Your task to perform on an android device: turn off smart reply in the gmail app Image 0: 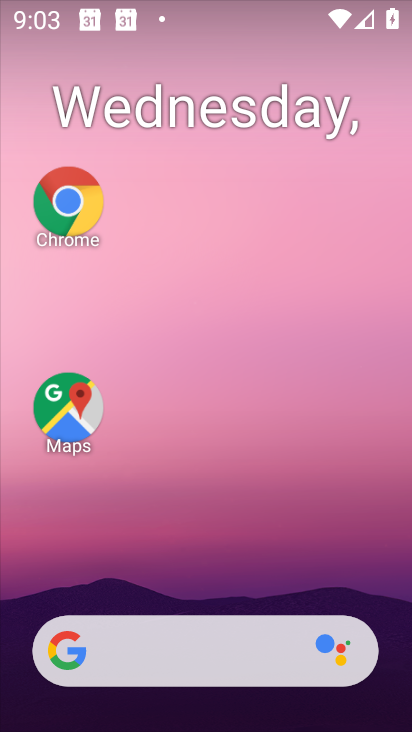
Step 0: drag from (197, 578) to (143, 19)
Your task to perform on an android device: turn off smart reply in the gmail app Image 1: 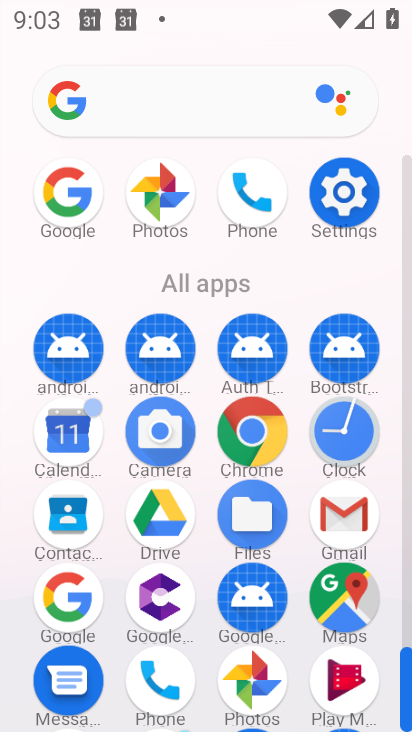
Step 1: click (360, 522)
Your task to perform on an android device: turn off smart reply in the gmail app Image 2: 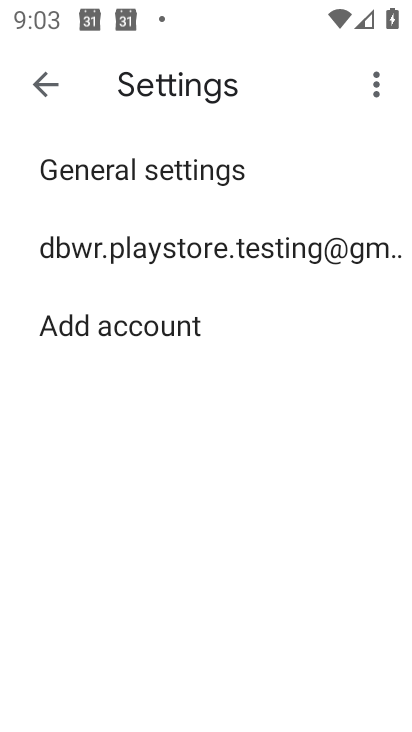
Step 2: click (74, 233)
Your task to perform on an android device: turn off smart reply in the gmail app Image 3: 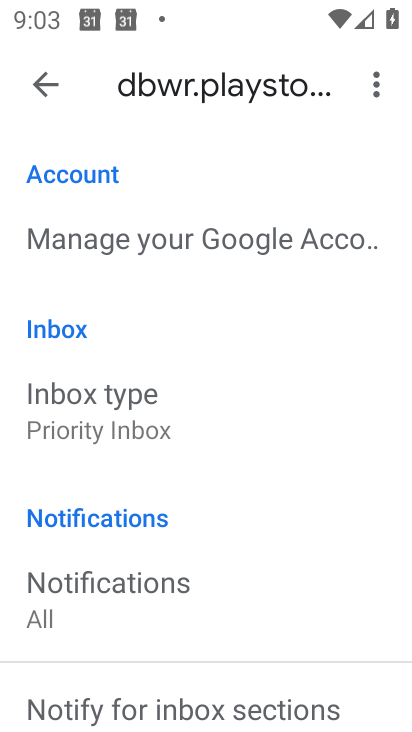
Step 3: drag from (265, 555) to (166, 82)
Your task to perform on an android device: turn off smart reply in the gmail app Image 4: 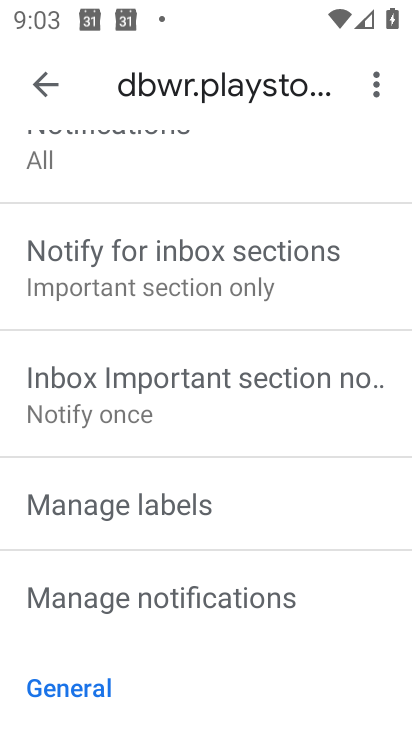
Step 4: drag from (199, 495) to (159, 44)
Your task to perform on an android device: turn off smart reply in the gmail app Image 5: 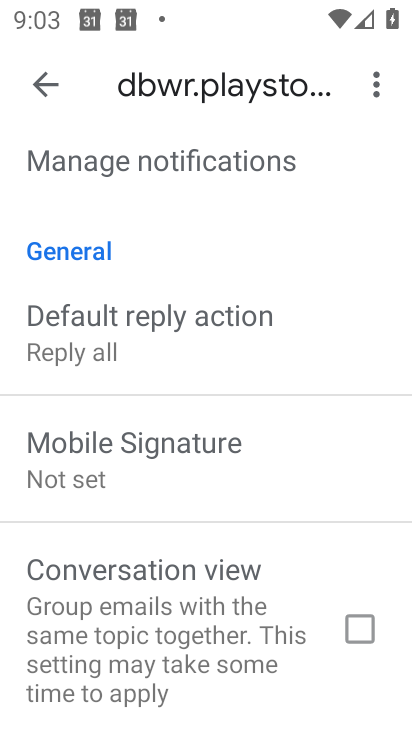
Step 5: drag from (215, 578) to (156, 4)
Your task to perform on an android device: turn off smart reply in the gmail app Image 6: 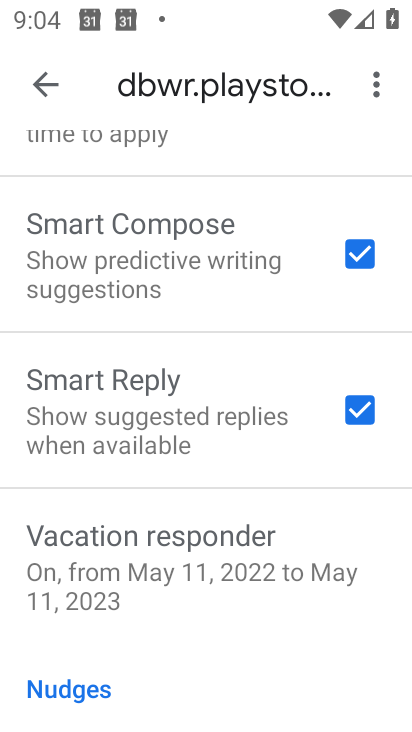
Step 6: click (343, 406)
Your task to perform on an android device: turn off smart reply in the gmail app Image 7: 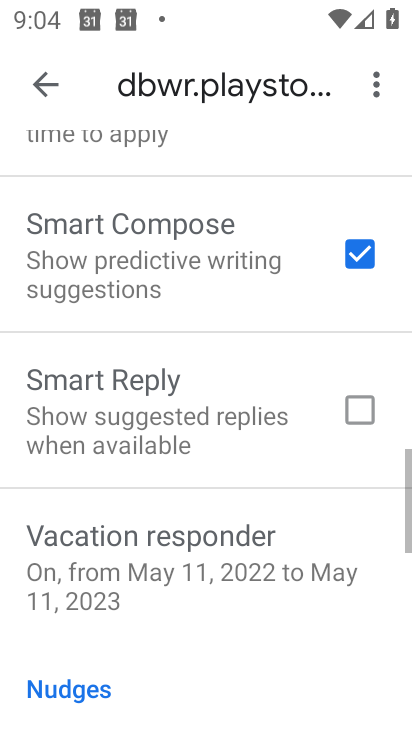
Step 7: task complete